Your task to perform on an android device: turn notification dots off Image 0: 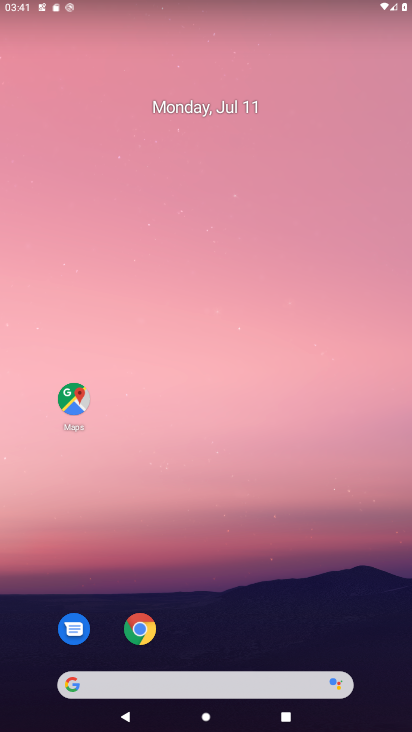
Step 0: drag from (202, 519) to (285, 41)
Your task to perform on an android device: turn notification dots off Image 1: 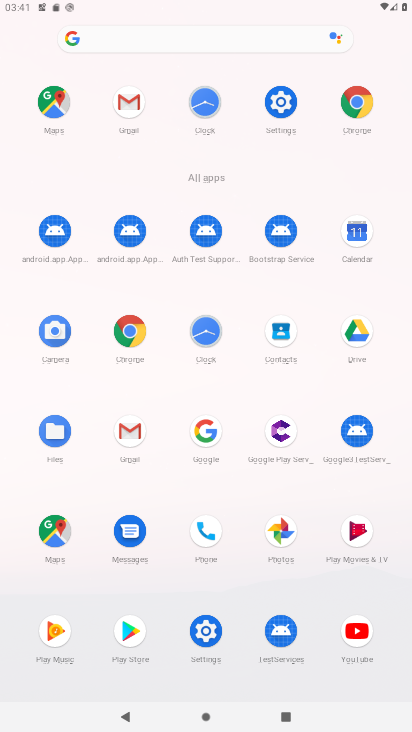
Step 1: click (271, 106)
Your task to perform on an android device: turn notification dots off Image 2: 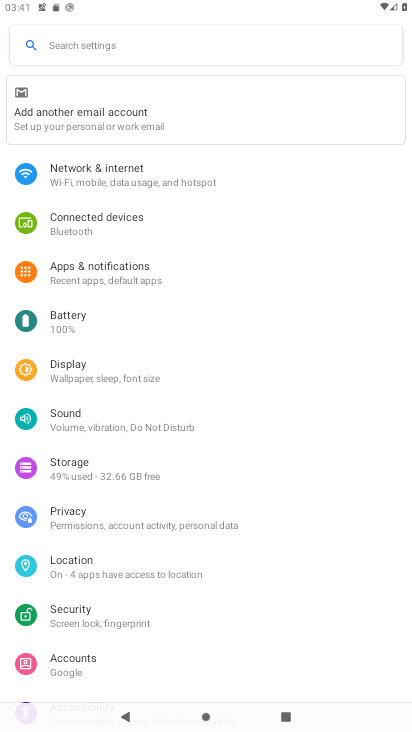
Step 2: click (137, 271)
Your task to perform on an android device: turn notification dots off Image 3: 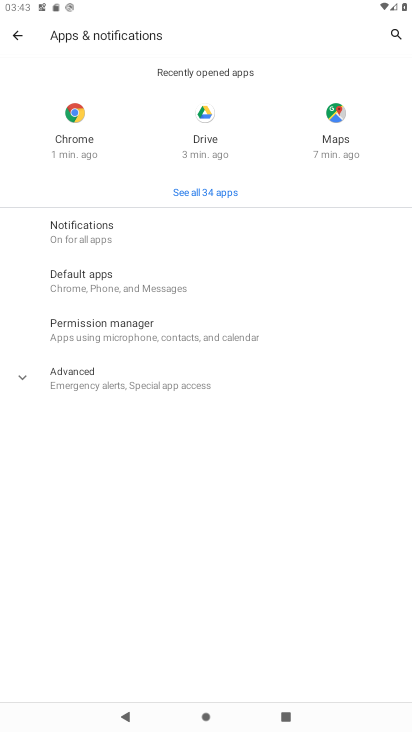
Step 3: click (106, 244)
Your task to perform on an android device: turn notification dots off Image 4: 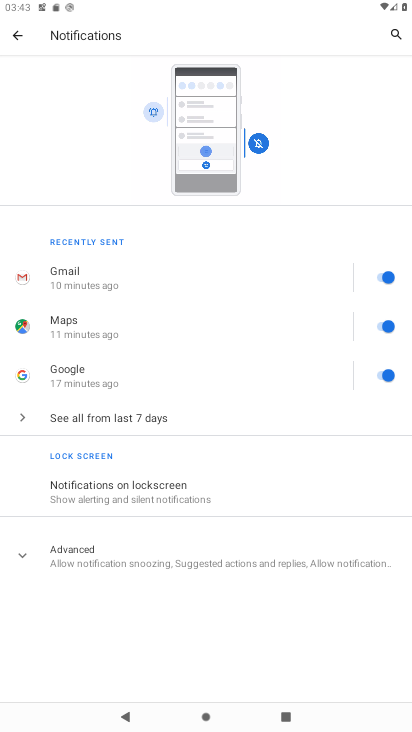
Step 4: click (106, 566)
Your task to perform on an android device: turn notification dots off Image 5: 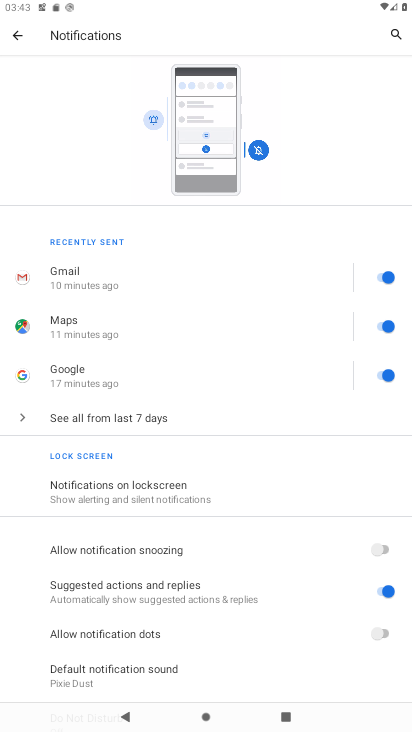
Step 5: task complete